Your task to perform on an android device: open a bookmark in the chrome app Image 0: 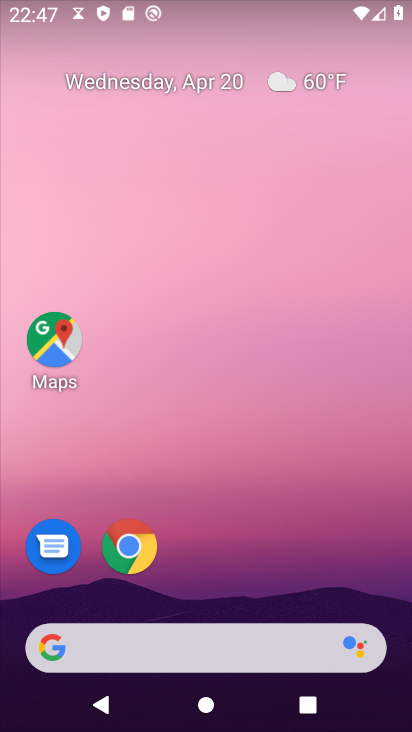
Step 0: click (117, 548)
Your task to perform on an android device: open a bookmark in the chrome app Image 1: 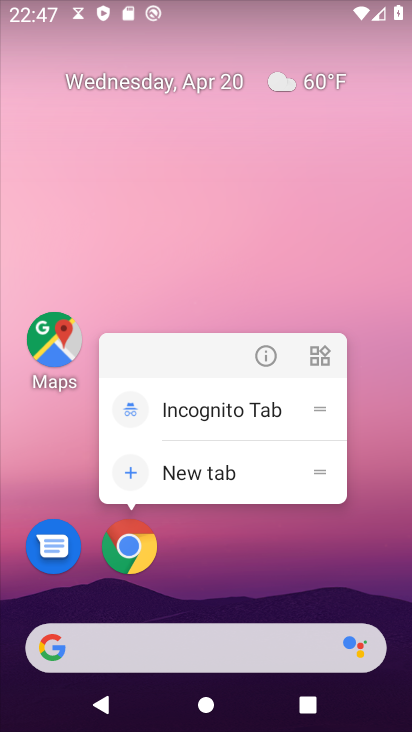
Step 1: click (138, 550)
Your task to perform on an android device: open a bookmark in the chrome app Image 2: 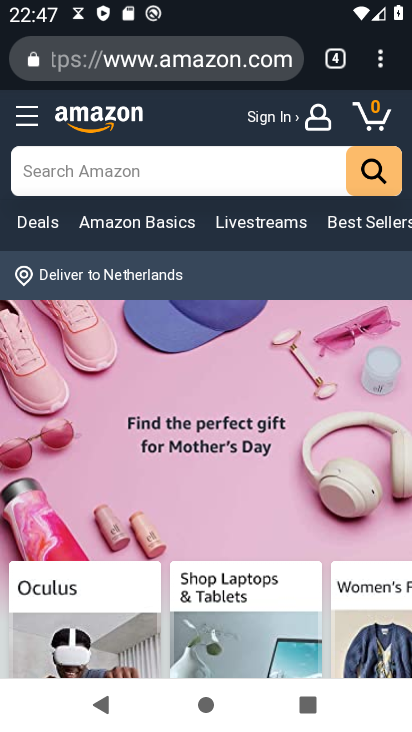
Step 2: click (384, 60)
Your task to perform on an android device: open a bookmark in the chrome app Image 3: 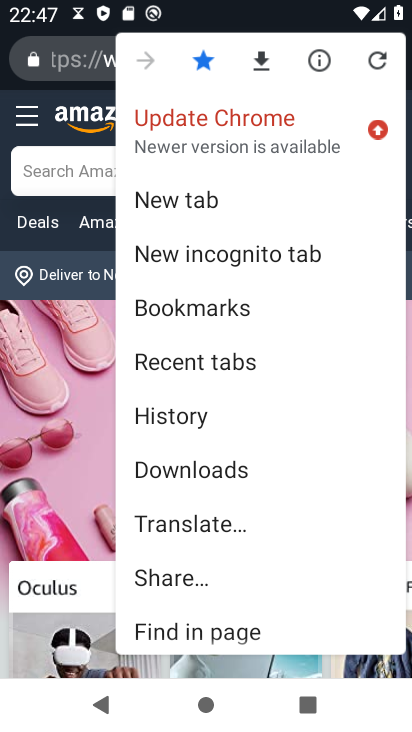
Step 3: click (229, 306)
Your task to perform on an android device: open a bookmark in the chrome app Image 4: 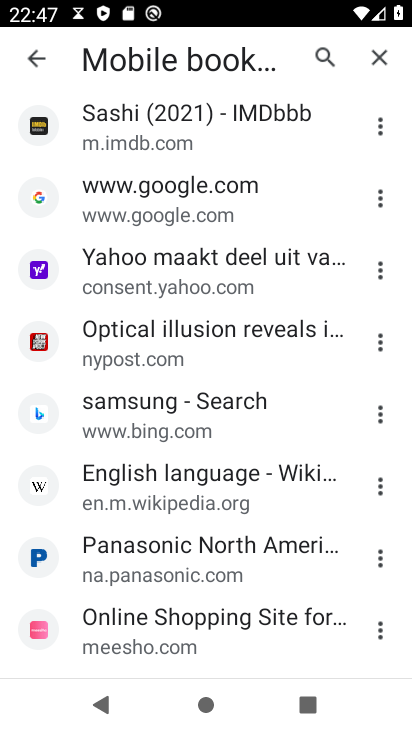
Step 4: click (171, 410)
Your task to perform on an android device: open a bookmark in the chrome app Image 5: 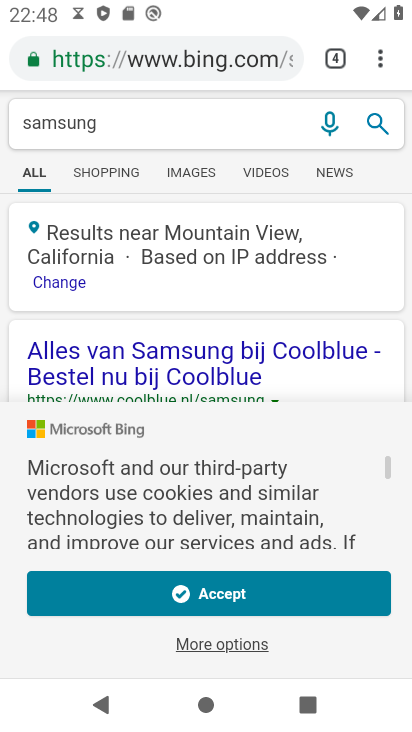
Step 5: task complete